Your task to perform on an android device: Show me popular videos on Youtube Image 0: 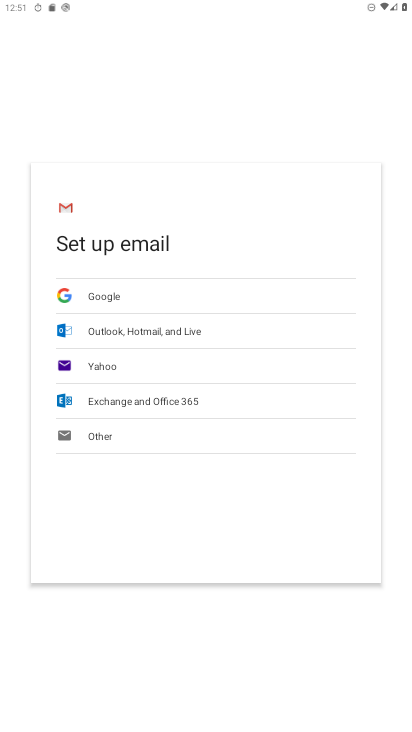
Step 0: press home button
Your task to perform on an android device: Show me popular videos on Youtube Image 1: 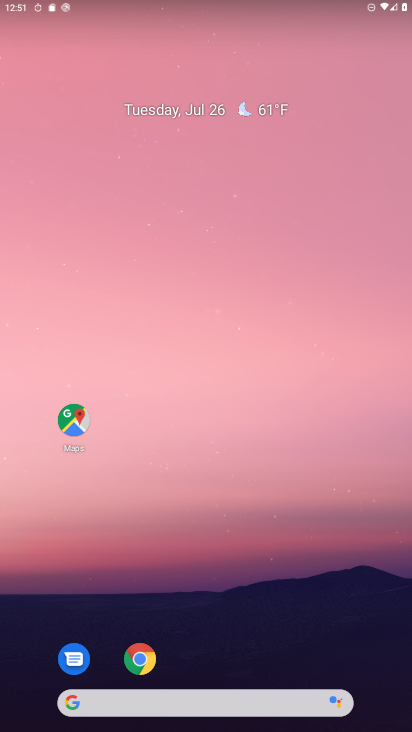
Step 1: drag from (78, 601) to (193, 326)
Your task to perform on an android device: Show me popular videos on Youtube Image 2: 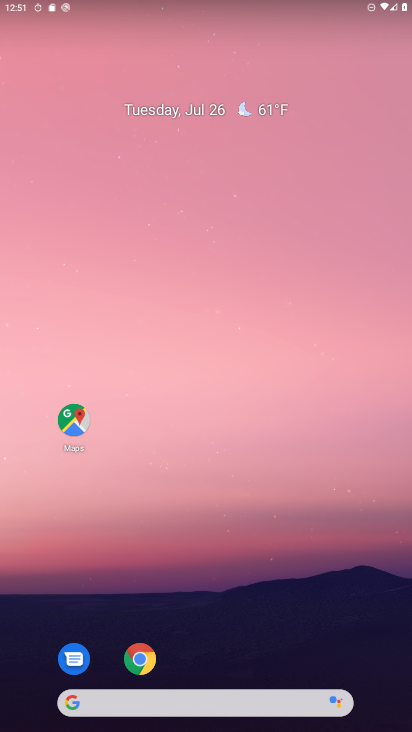
Step 2: drag from (54, 666) to (224, 124)
Your task to perform on an android device: Show me popular videos on Youtube Image 3: 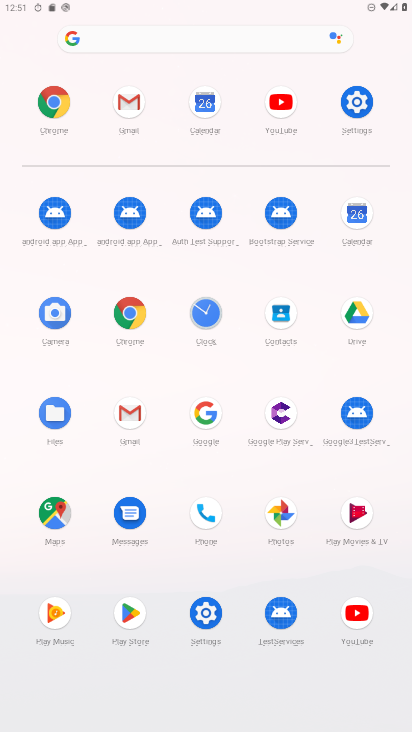
Step 3: click (280, 109)
Your task to perform on an android device: Show me popular videos on Youtube Image 4: 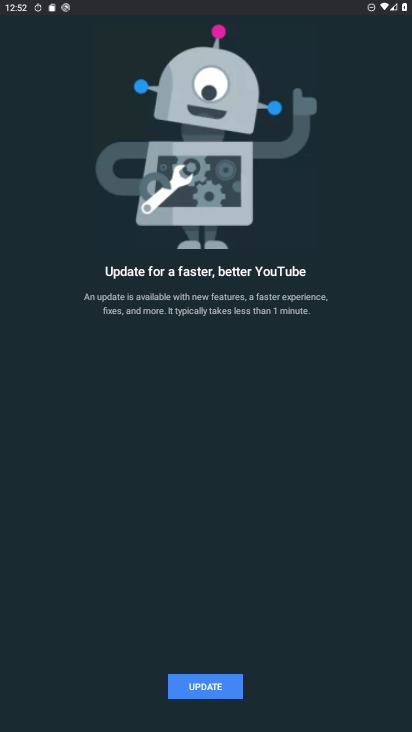
Step 4: click (232, 679)
Your task to perform on an android device: Show me popular videos on Youtube Image 5: 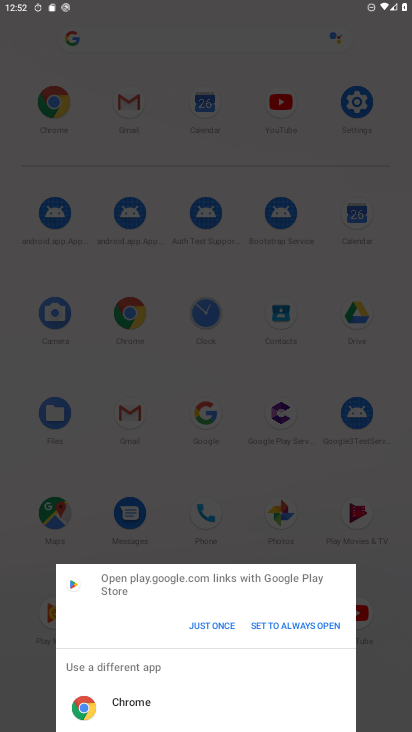
Step 5: click (227, 629)
Your task to perform on an android device: Show me popular videos on Youtube Image 6: 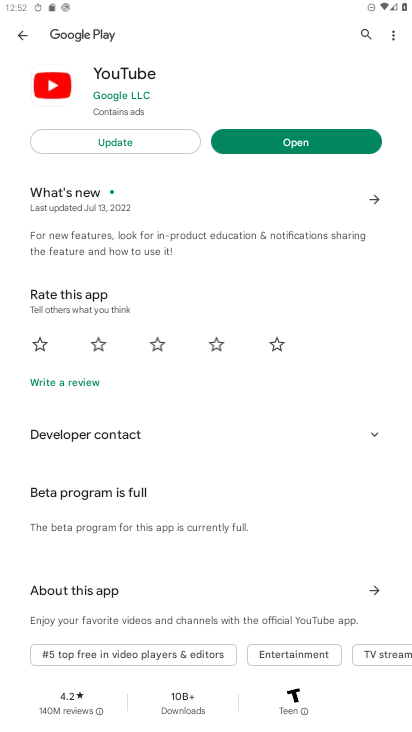
Step 6: click (353, 133)
Your task to perform on an android device: Show me popular videos on Youtube Image 7: 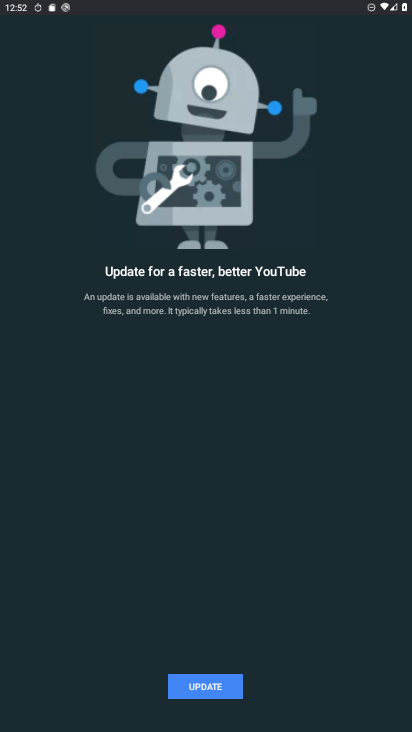
Step 7: task complete